Your task to perform on an android device: Open calendar and show me the second week of next month Image 0: 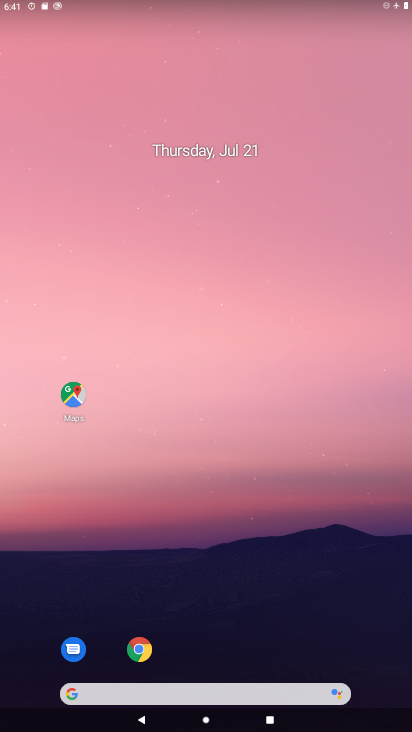
Step 0: drag from (366, 656) to (229, 62)
Your task to perform on an android device: Open calendar and show me the second week of next month Image 1: 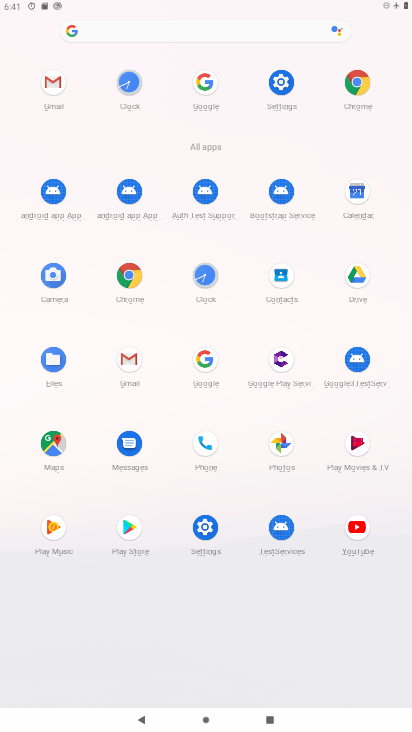
Step 1: click (344, 199)
Your task to perform on an android device: Open calendar and show me the second week of next month Image 2: 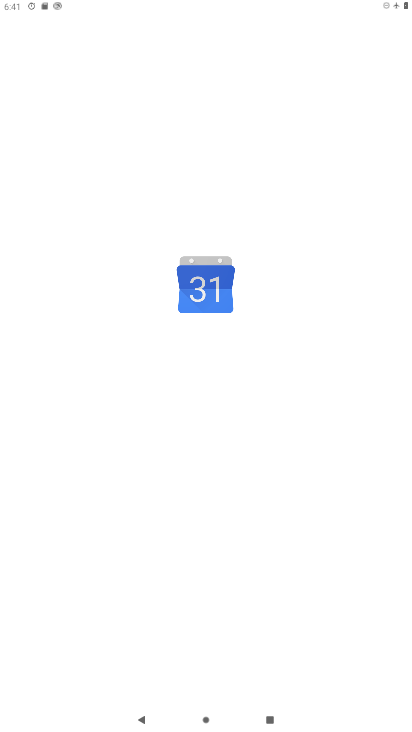
Step 2: drag from (325, 562) to (344, 198)
Your task to perform on an android device: Open calendar and show me the second week of next month Image 3: 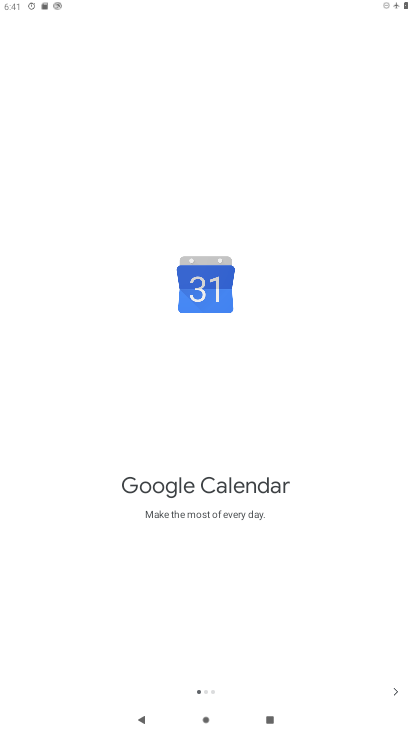
Step 3: click (400, 690)
Your task to perform on an android device: Open calendar and show me the second week of next month Image 4: 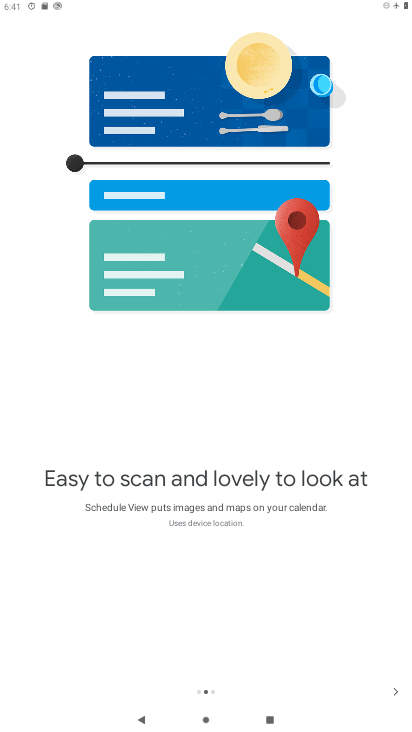
Step 4: click (400, 690)
Your task to perform on an android device: Open calendar and show me the second week of next month Image 5: 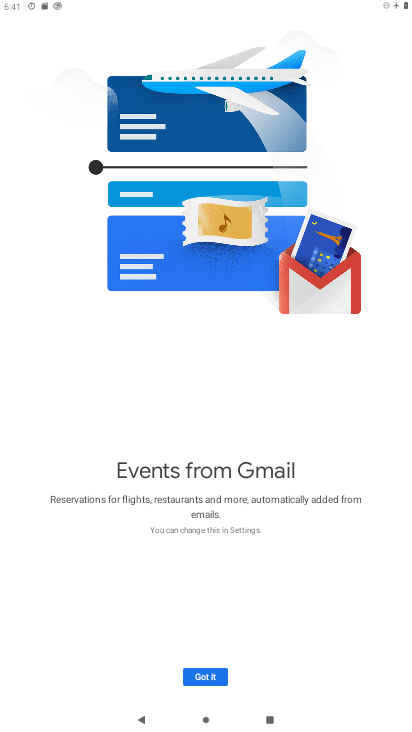
Step 5: click (196, 678)
Your task to perform on an android device: Open calendar and show me the second week of next month Image 6: 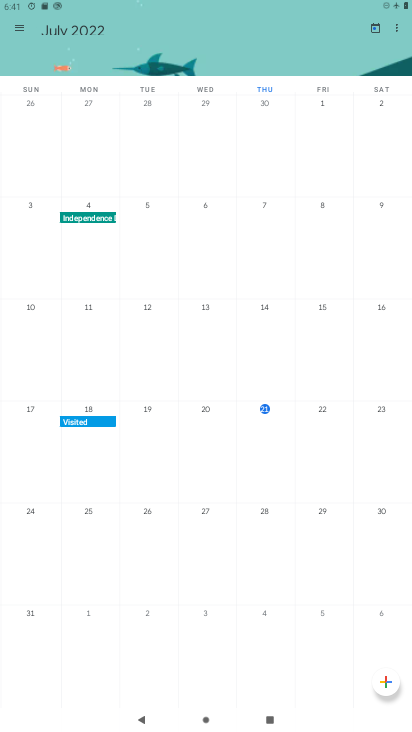
Step 6: drag from (345, 296) to (47, 328)
Your task to perform on an android device: Open calendar and show me the second week of next month Image 7: 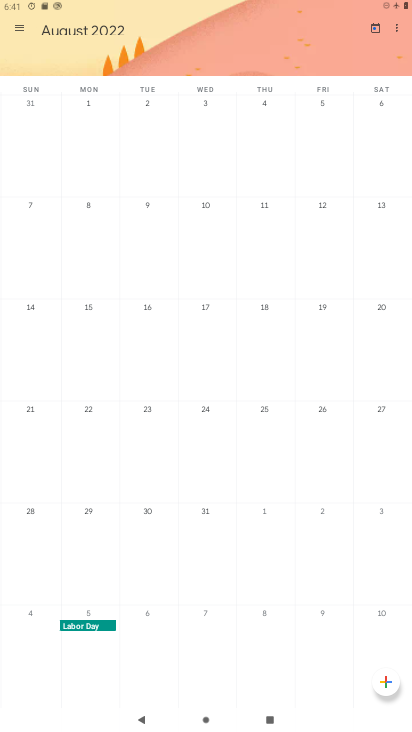
Step 7: click (37, 212)
Your task to perform on an android device: Open calendar and show me the second week of next month Image 8: 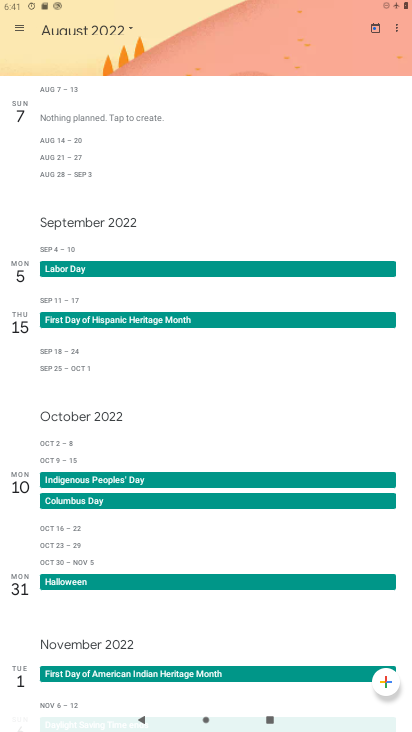
Step 8: task complete